Your task to perform on an android device: Go to privacy settings Image 0: 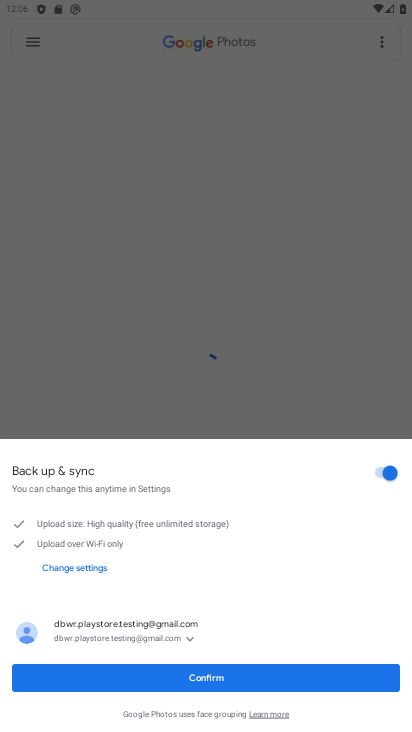
Step 0: press home button
Your task to perform on an android device: Go to privacy settings Image 1: 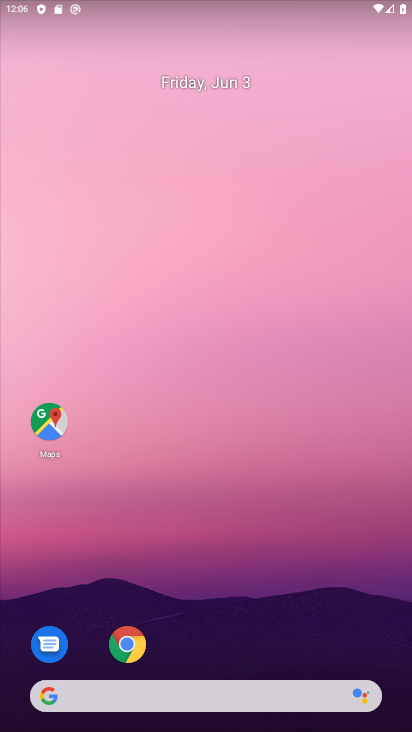
Step 1: drag from (209, 729) to (179, 36)
Your task to perform on an android device: Go to privacy settings Image 2: 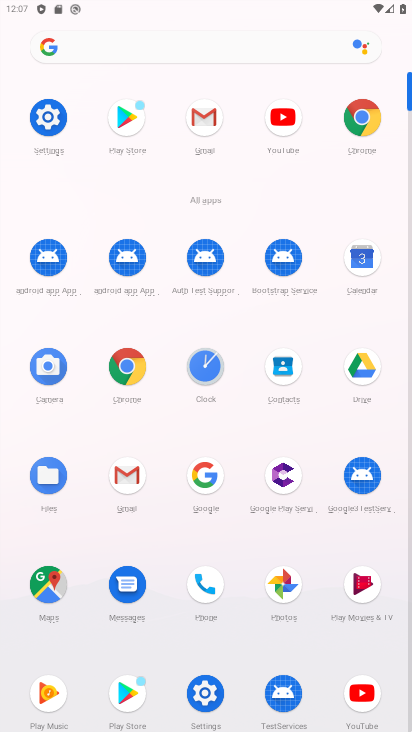
Step 2: click (43, 115)
Your task to perform on an android device: Go to privacy settings Image 3: 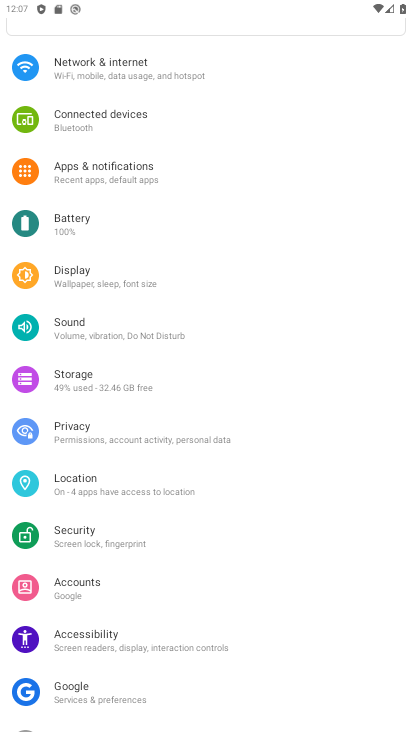
Step 3: click (84, 433)
Your task to perform on an android device: Go to privacy settings Image 4: 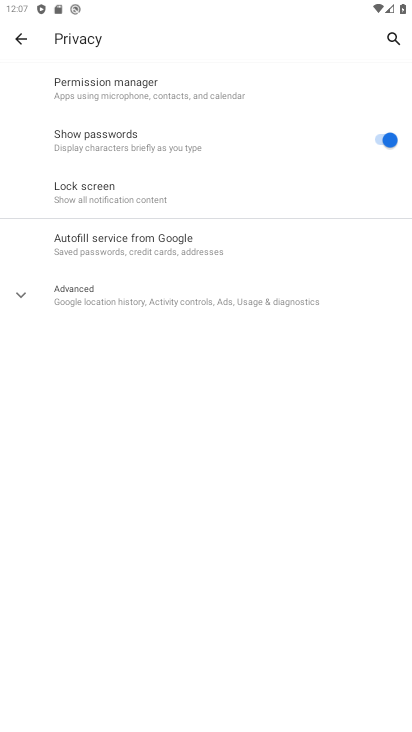
Step 4: task complete